Your task to perform on an android device: Go to internet settings Image 0: 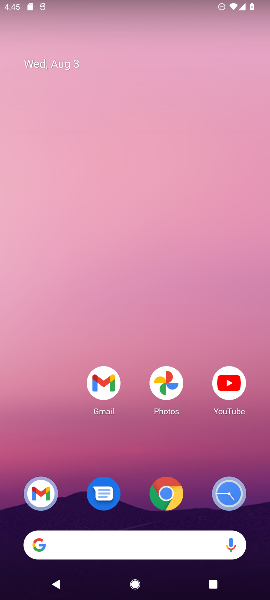
Step 0: press home button
Your task to perform on an android device: Go to internet settings Image 1: 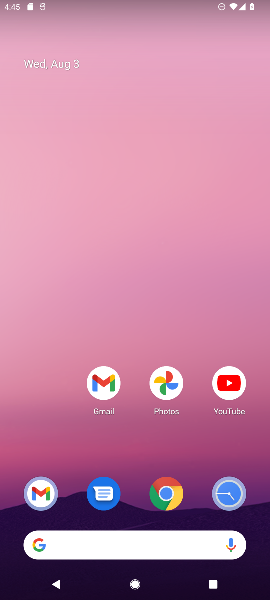
Step 1: drag from (50, 442) to (71, 163)
Your task to perform on an android device: Go to internet settings Image 2: 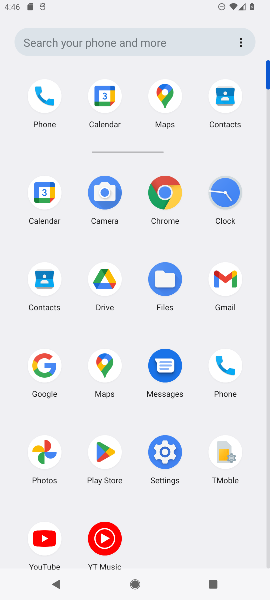
Step 2: click (162, 454)
Your task to perform on an android device: Go to internet settings Image 3: 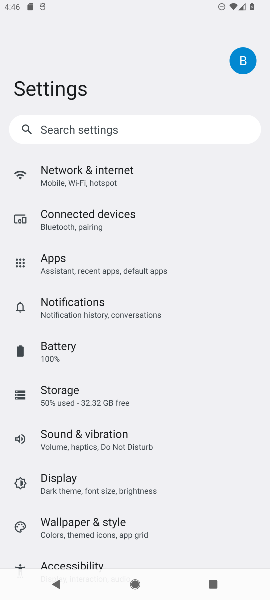
Step 3: drag from (192, 480) to (210, 422)
Your task to perform on an android device: Go to internet settings Image 4: 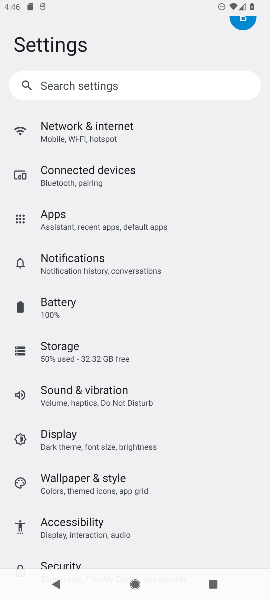
Step 4: drag from (203, 503) to (213, 449)
Your task to perform on an android device: Go to internet settings Image 5: 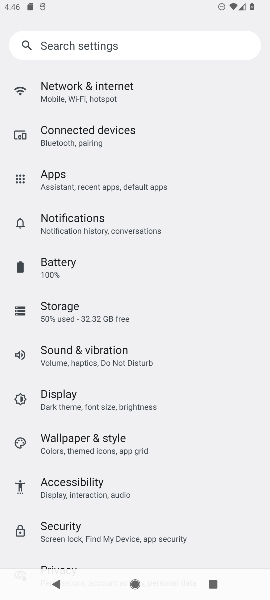
Step 5: drag from (215, 522) to (223, 432)
Your task to perform on an android device: Go to internet settings Image 6: 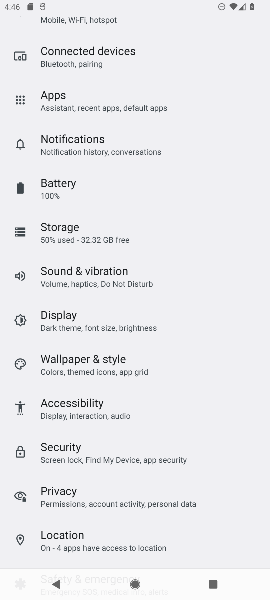
Step 6: drag from (225, 545) to (228, 471)
Your task to perform on an android device: Go to internet settings Image 7: 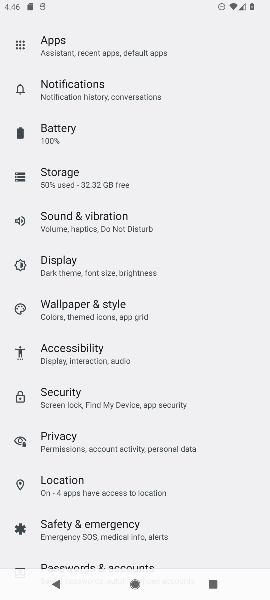
Step 7: drag from (216, 511) to (231, 421)
Your task to perform on an android device: Go to internet settings Image 8: 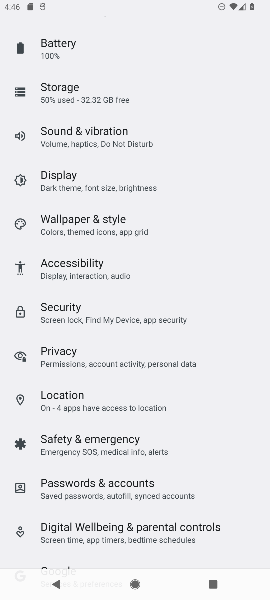
Step 8: drag from (234, 520) to (237, 436)
Your task to perform on an android device: Go to internet settings Image 9: 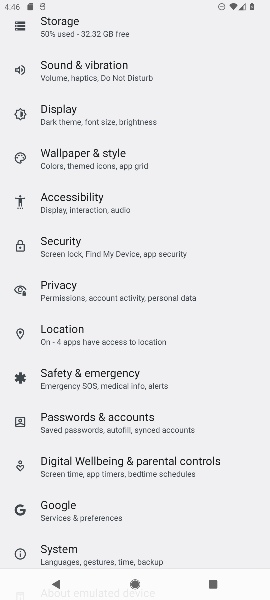
Step 9: drag from (222, 516) to (220, 433)
Your task to perform on an android device: Go to internet settings Image 10: 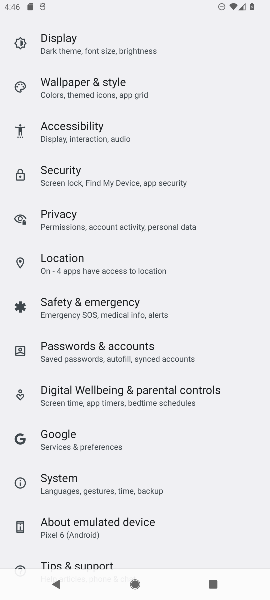
Step 10: drag from (202, 517) to (206, 428)
Your task to perform on an android device: Go to internet settings Image 11: 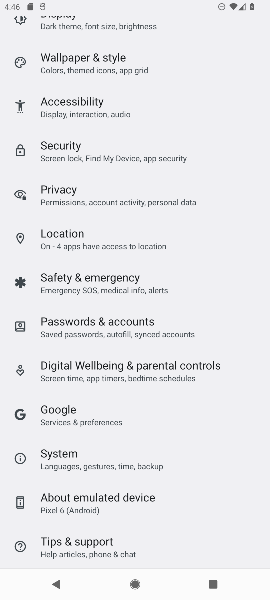
Step 11: drag from (230, 264) to (234, 363)
Your task to perform on an android device: Go to internet settings Image 12: 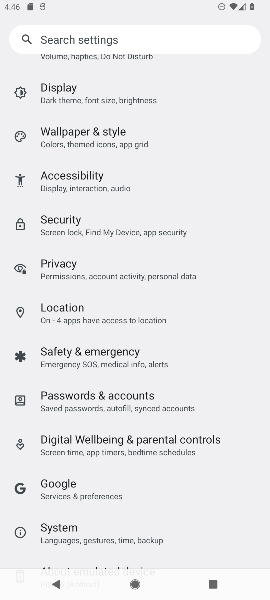
Step 12: drag from (230, 245) to (221, 346)
Your task to perform on an android device: Go to internet settings Image 13: 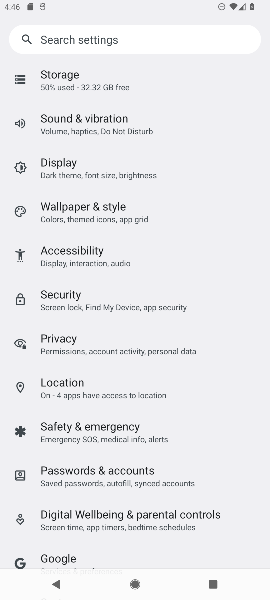
Step 13: drag from (211, 223) to (211, 330)
Your task to perform on an android device: Go to internet settings Image 14: 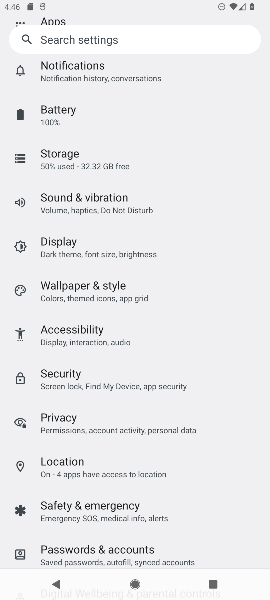
Step 14: drag from (212, 176) to (209, 263)
Your task to perform on an android device: Go to internet settings Image 15: 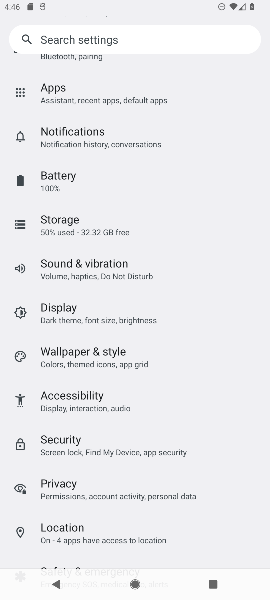
Step 15: drag from (223, 142) to (226, 272)
Your task to perform on an android device: Go to internet settings Image 16: 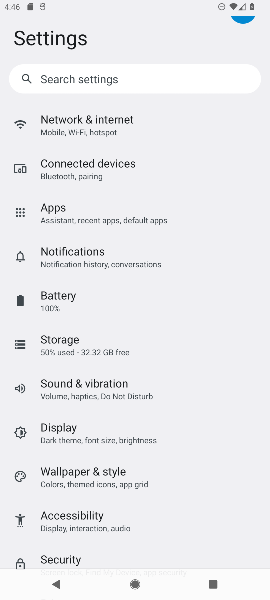
Step 16: click (132, 124)
Your task to perform on an android device: Go to internet settings Image 17: 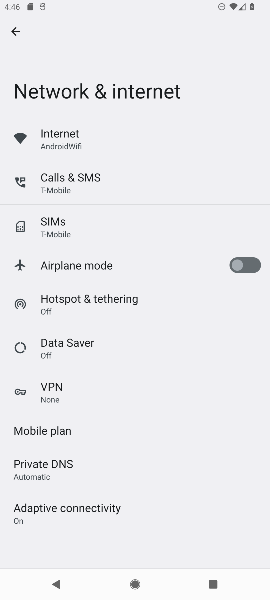
Step 17: task complete